Your task to perform on an android device: What is the recent news? Image 0: 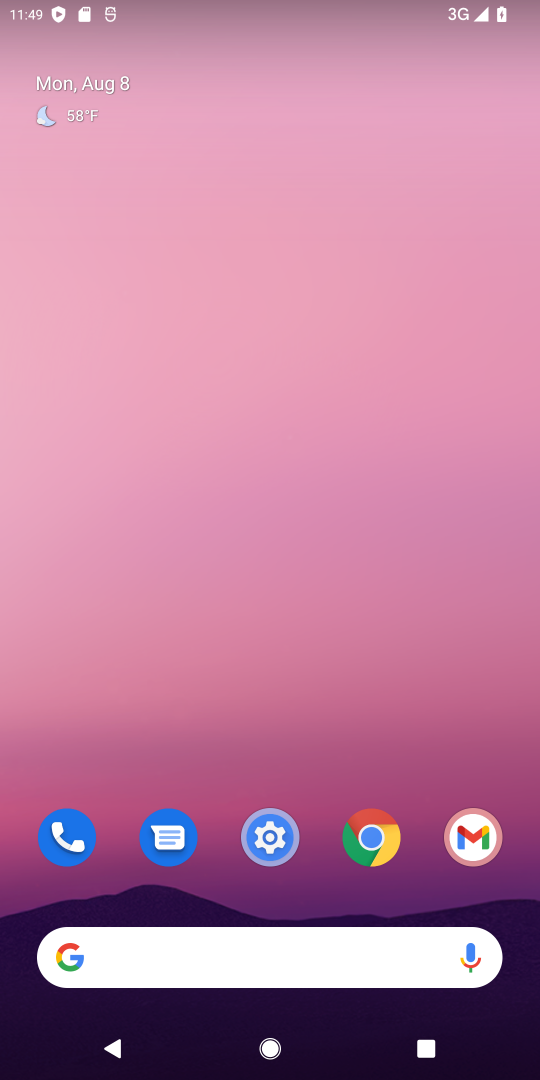
Step 0: drag from (211, 460) to (523, 208)
Your task to perform on an android device: What is the recent news? Image 1: 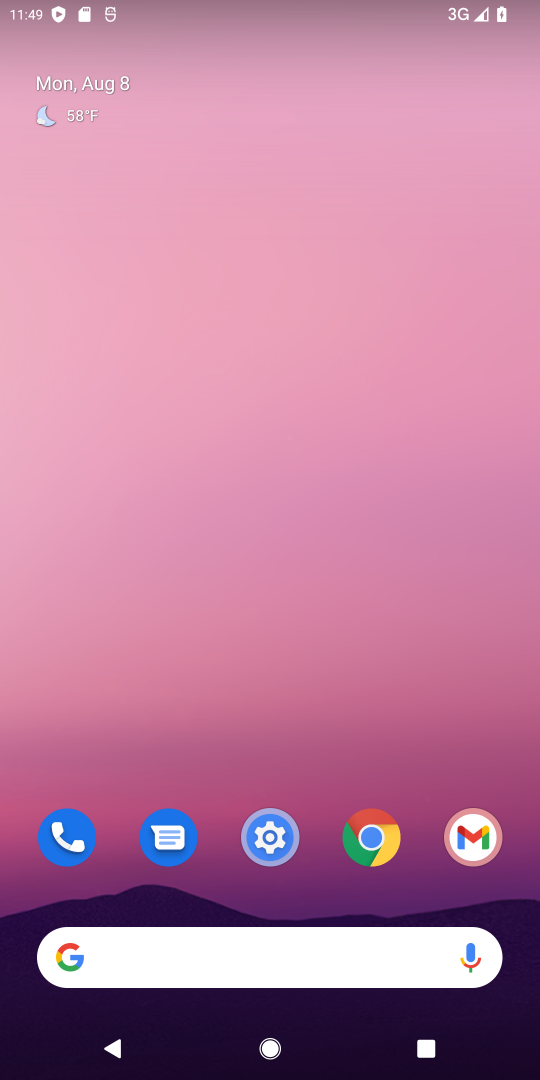
Step 1: task complete